Your task to perform on an android device: View the shopping cart on target. Add bose soundsport free to the cart on target Image 0: 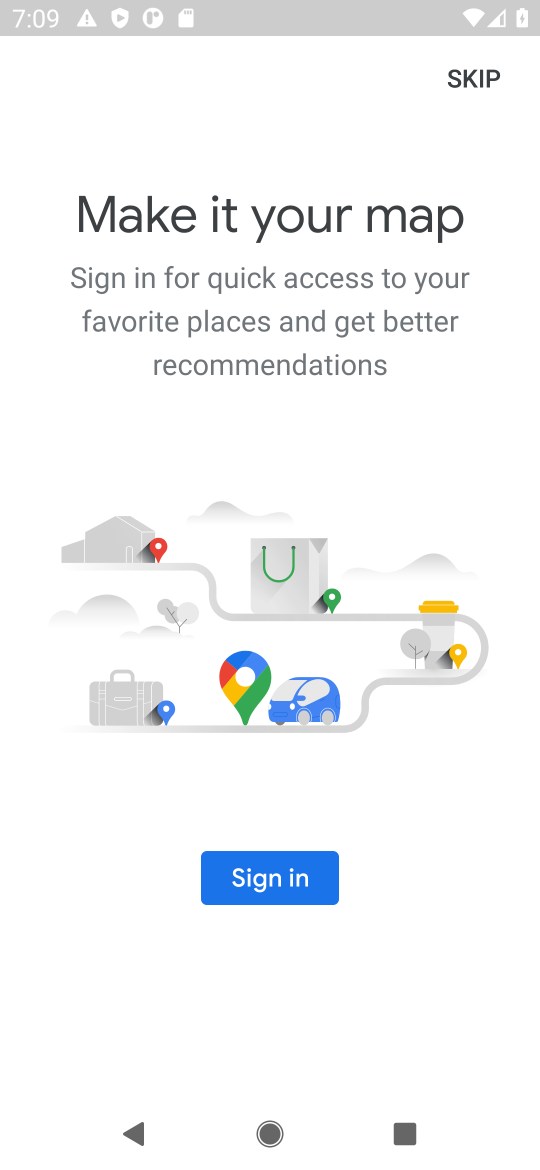
Step 0: click (461, 95)
Your task to perform on an android device: View the shopping cart on target. Add bose soundsport free to the cart on target Image 1: 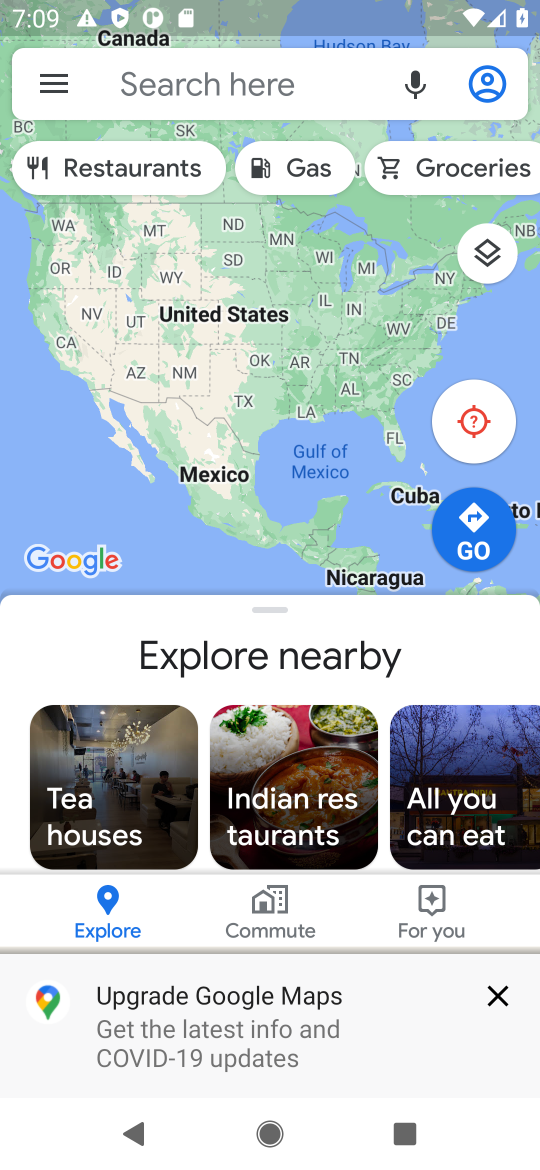
Step 1: press home button
Your task to perform on an android device: View the shopping cart on target. Add bose soundsport free to the cart on target Image 2: 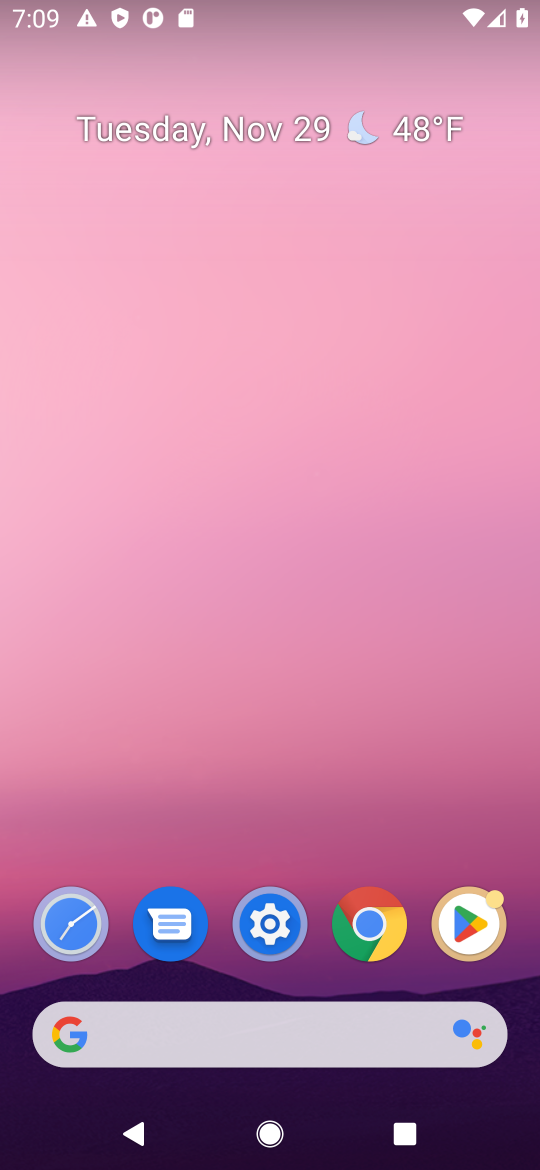
Step 2: click (334, 1016)
Your task to perform on an android device: View the shopping cart on target. Add bose soundsport free to the cart on target Image 3: 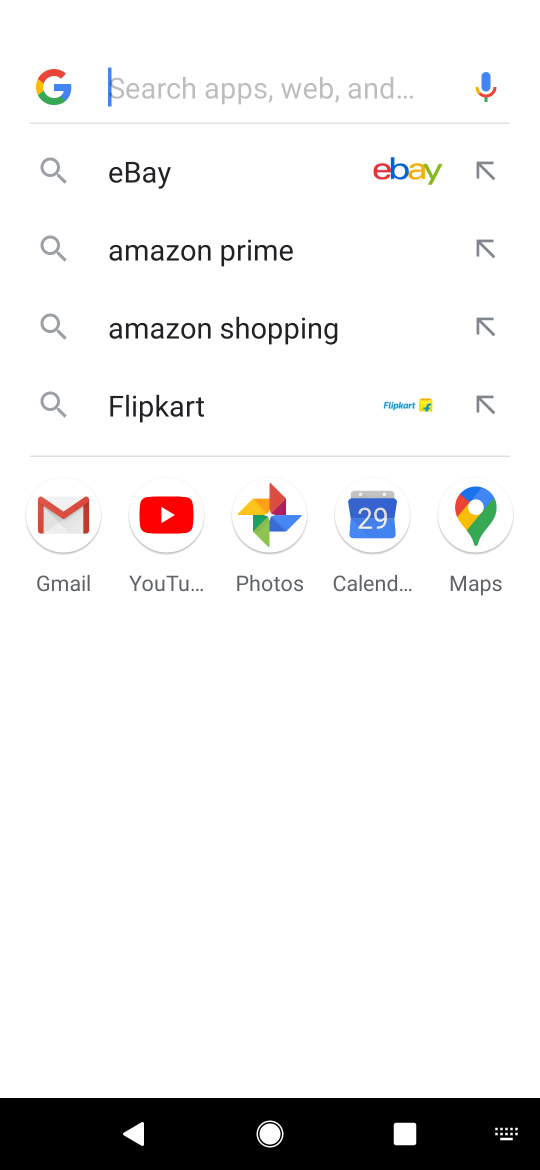
Step 3: type "target"
Your task to perform on an android device: View the shopping cart on target. Add bose soundsport free to the cart on target Image 4: 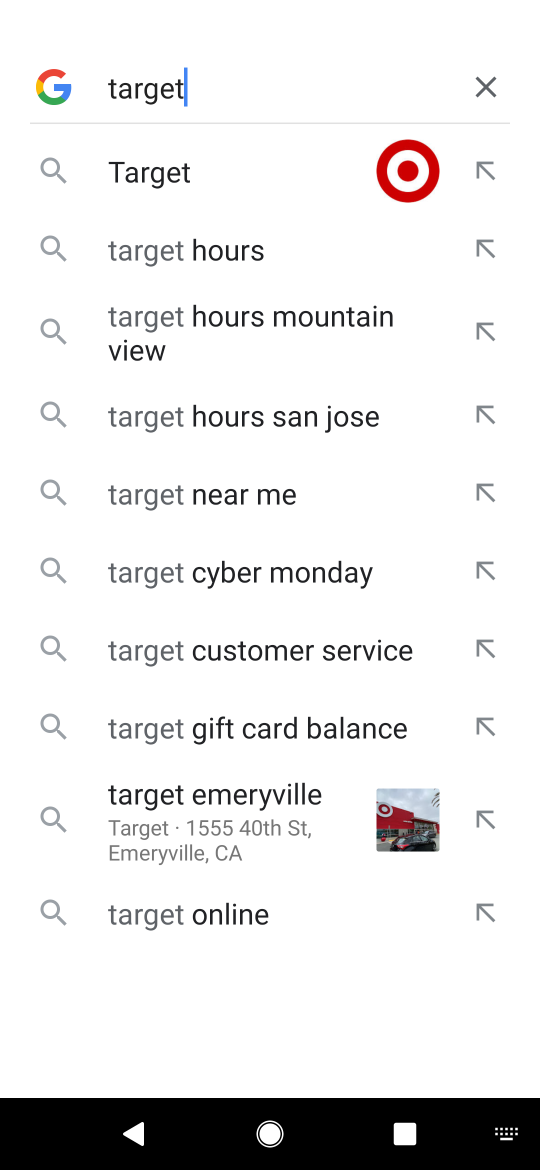
Step 4: click (306, 182)
Your task to perform on an android device: View the shopping cart on target. Add bose soundsport free to the cart on target Image 5: 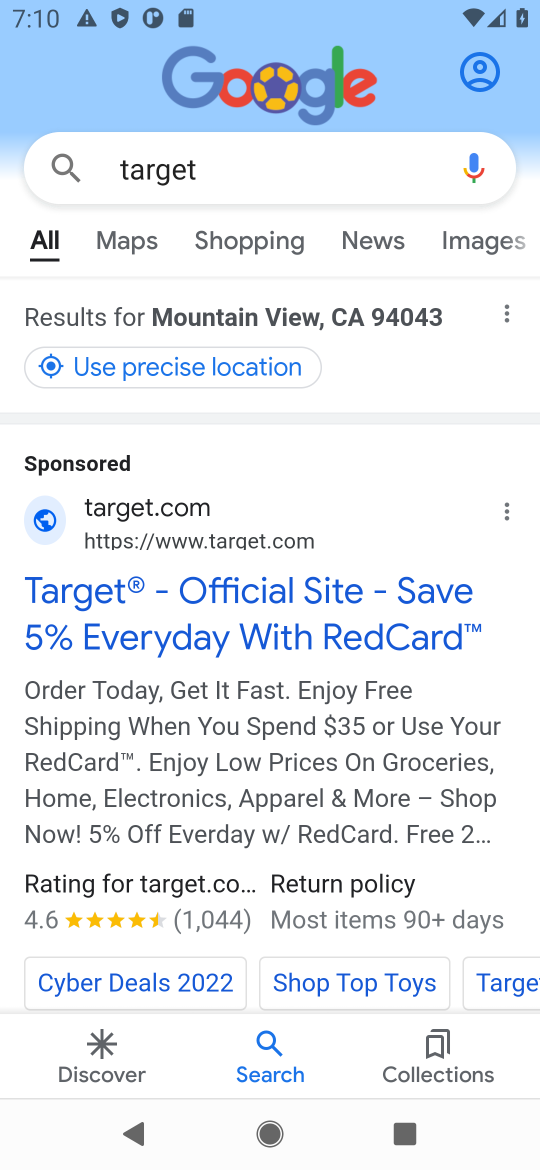
Step 5: click (130, 596)
Your task to perform on an android device: View the shopping cart on target. Add bose soundsport free to the cart on target Image 6: 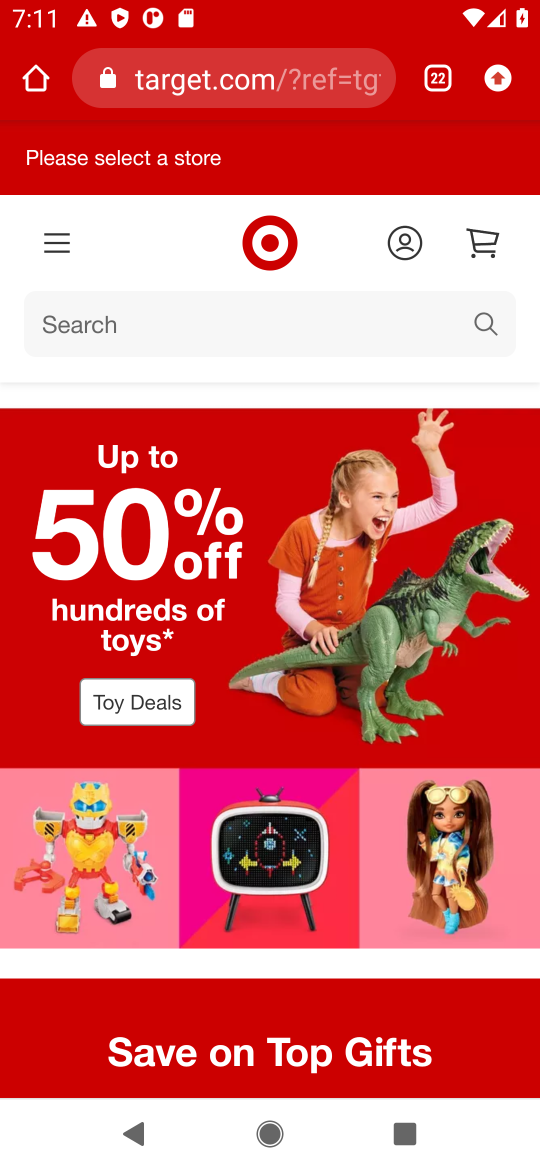
Step 6: click (199, 352)
Your task to perform on an android device: View the shopping cart on target. Add bose soundsport free to the cart on target Image 7: 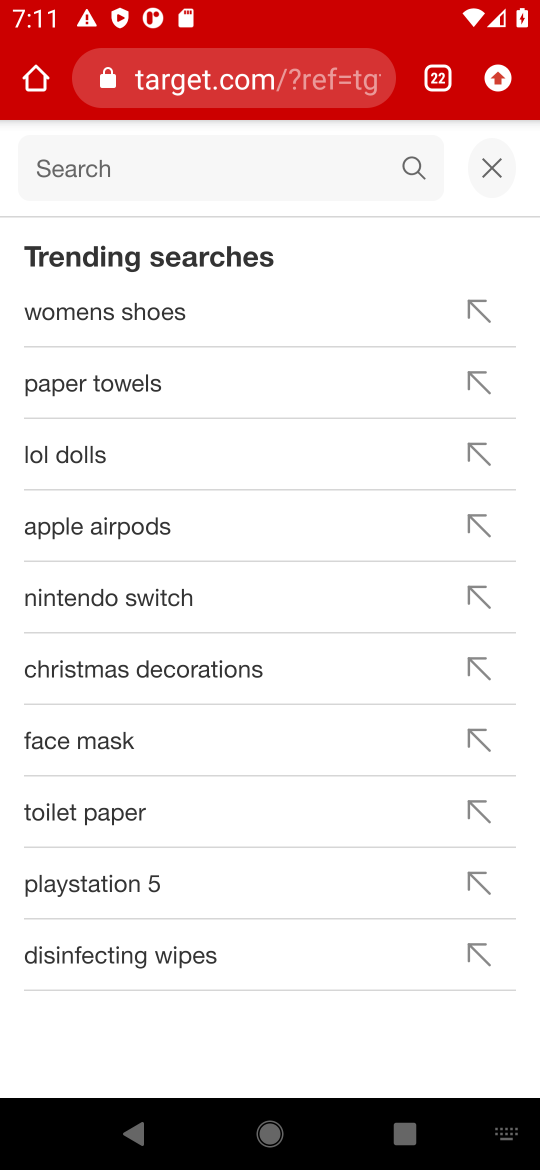
Step 7: type "bose soundsport"
Your task to perform on an android device: View the shopping cart on target. Add bose soundsport free to the cart on target Image 8: 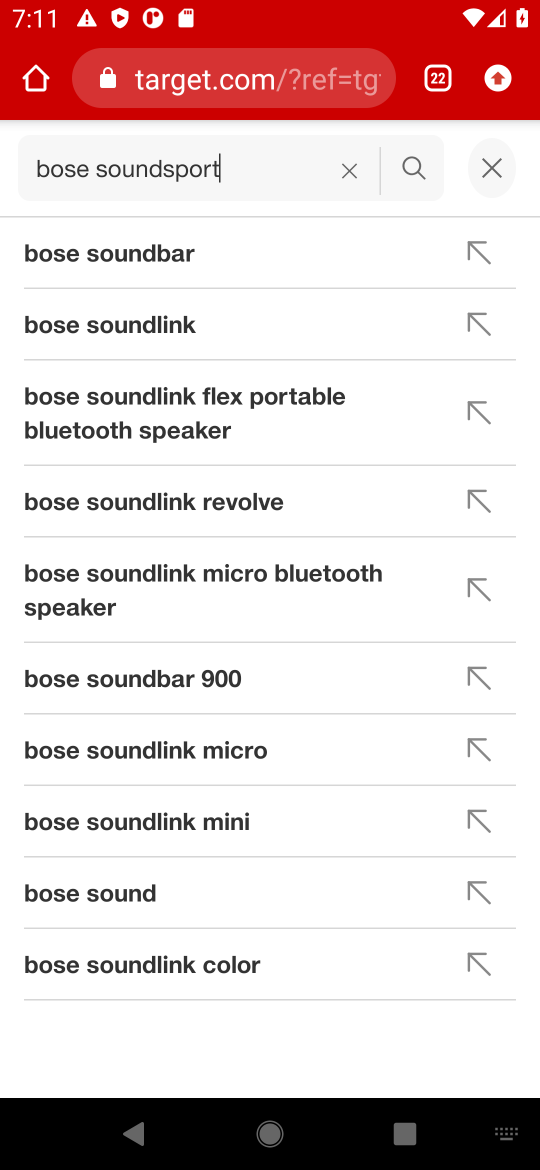
Step 8: click (407, 175)
Your task to perform on an android device: View the shopping cart on target. Add bose soundsport free to the cart on target Image 9: 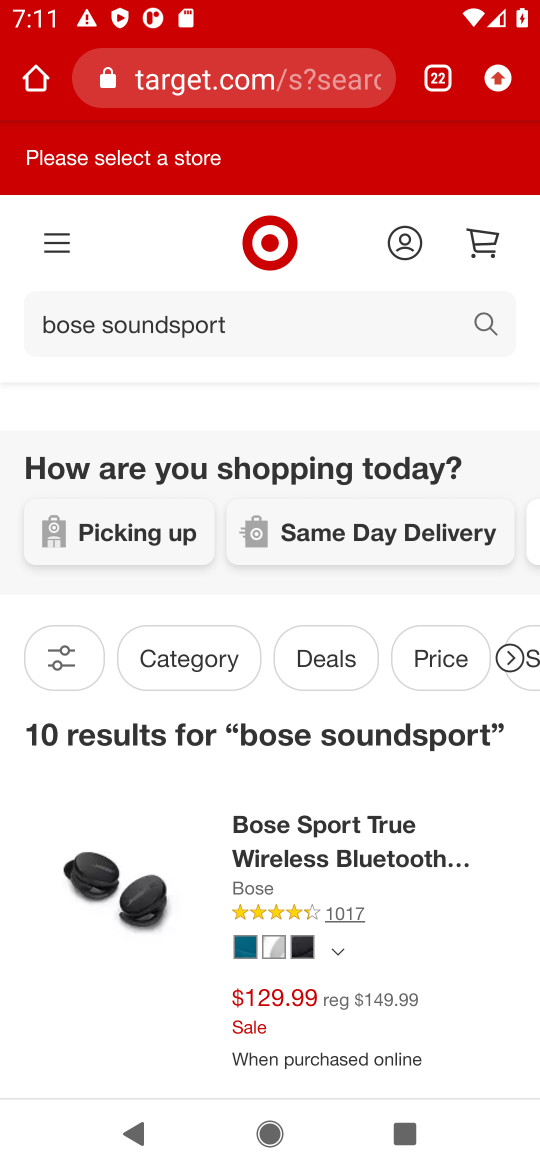
Step 9: click (253, 833)
Your task to perform on an android device: View the shopping cart on target. Add bose soundsport free to the cart on target Image 10: 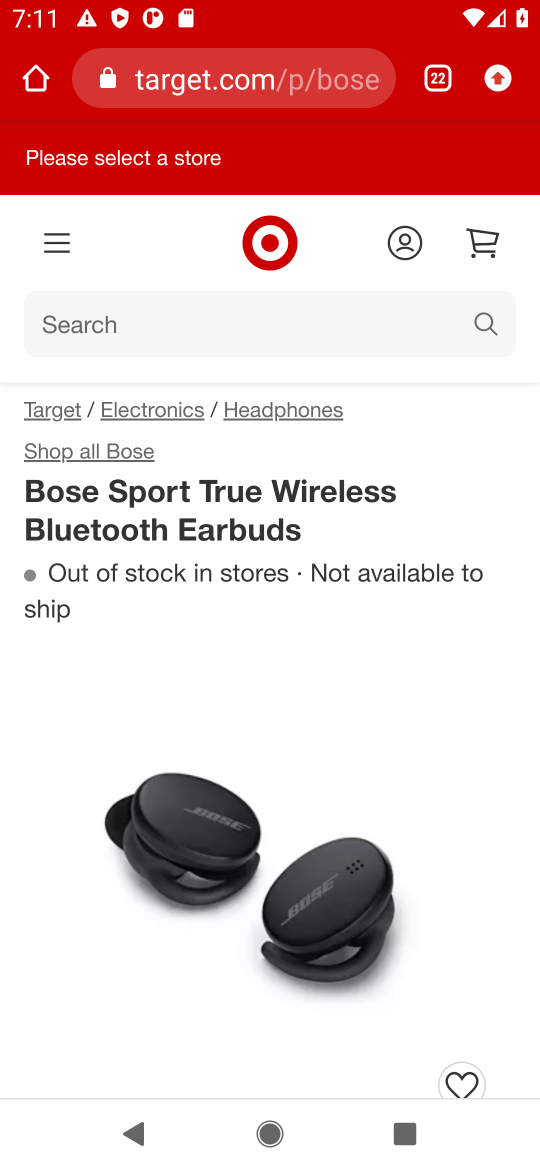
Step 10: drag from (474, 973) to (379, 306)
Your task to perform on an android device: View the shopping cart on target. Add bose soundsport free to the cart on target Image 11: 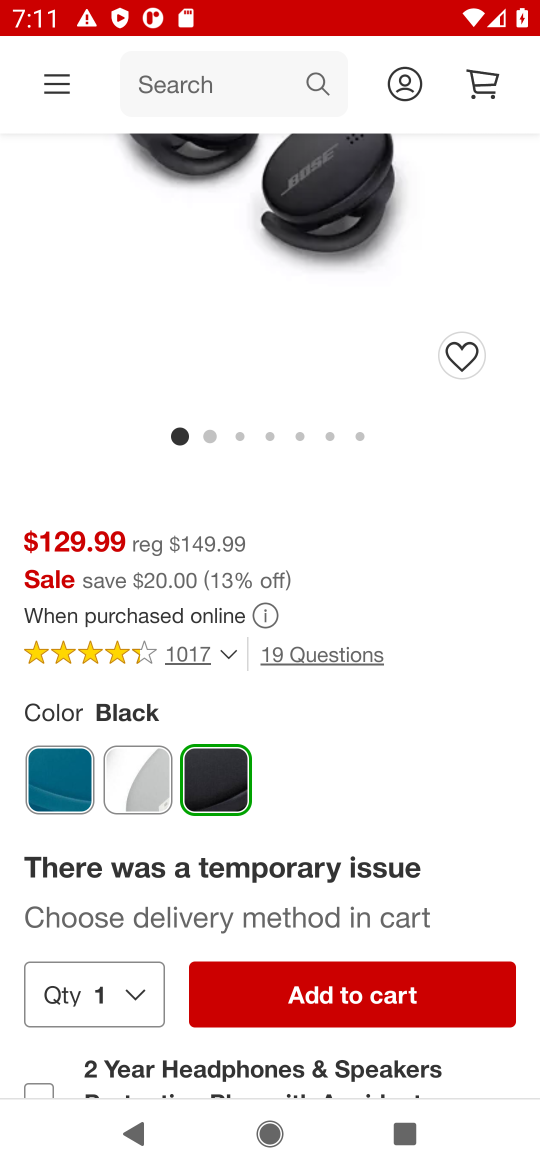
Step 11: click (393, 1010)
Your task to perform on an android device: View the shopping cart on target. Add bose soundsport free to the cart on target Image 12: 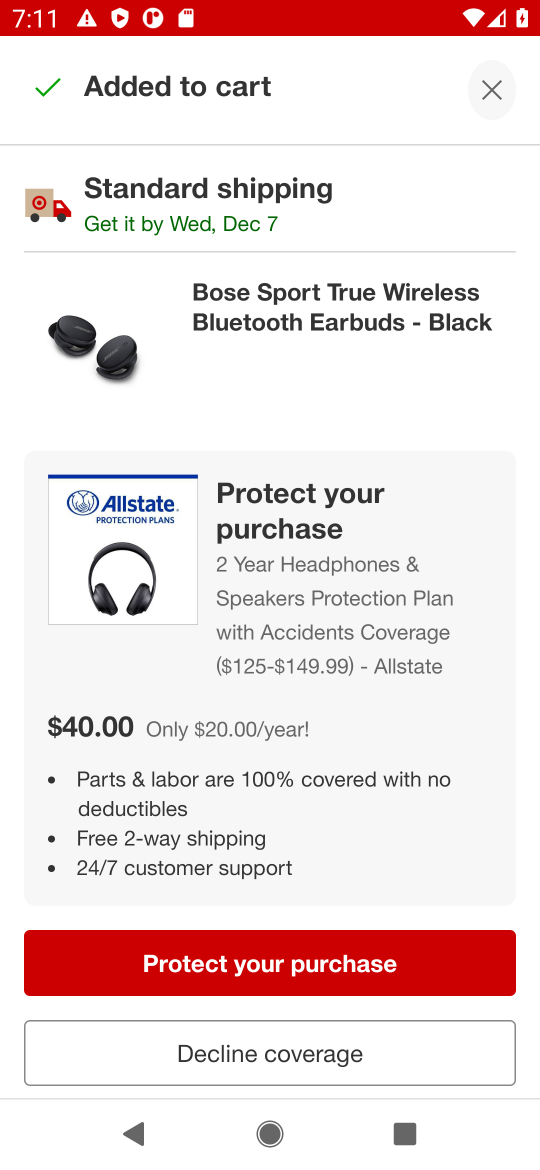
Step 12: task complete